Your task to perform on an android device: Go to battery settings Image 0: 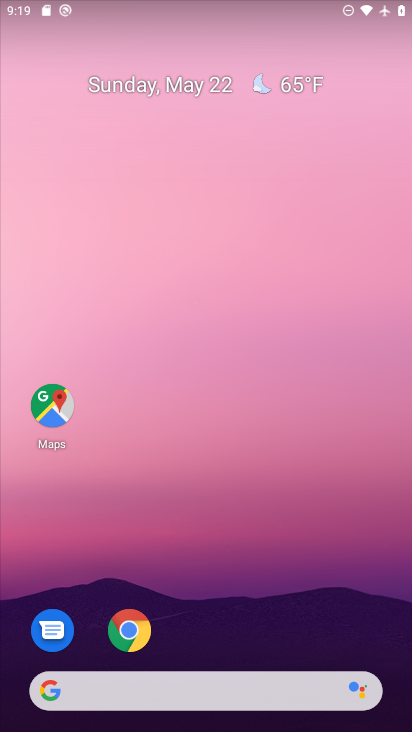
Step 0: drag from (174, 695) to (325, 175)
Your task to perform on an android device: Go to battery settings Image 1: 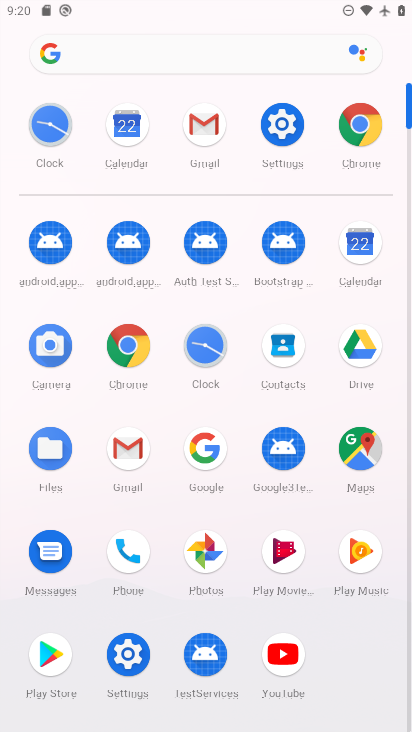
Step 1: click (286, 130)
Your task to perform on an android device: Go to battery settings Image 2: 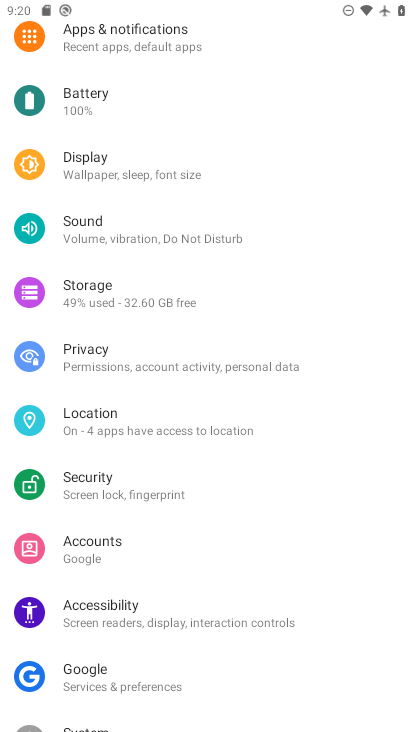
Step 2: click (98, 102)
Your task to perform on an android device: Go to battery settings Image 3: 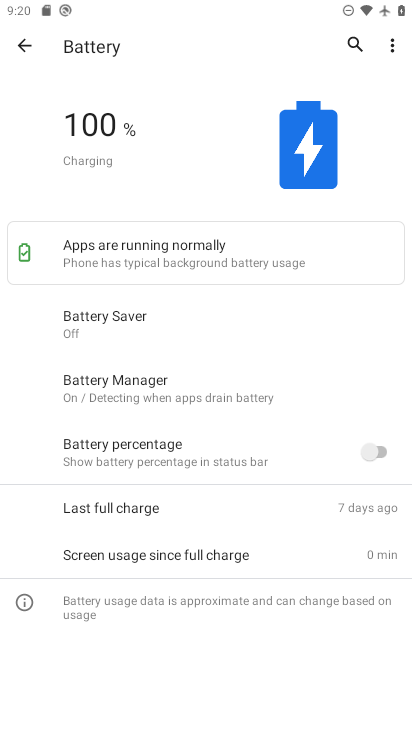
Step 3: task complete